Your task to perform on an android device: Search for seafood restaurants on Google Maps Image 0: 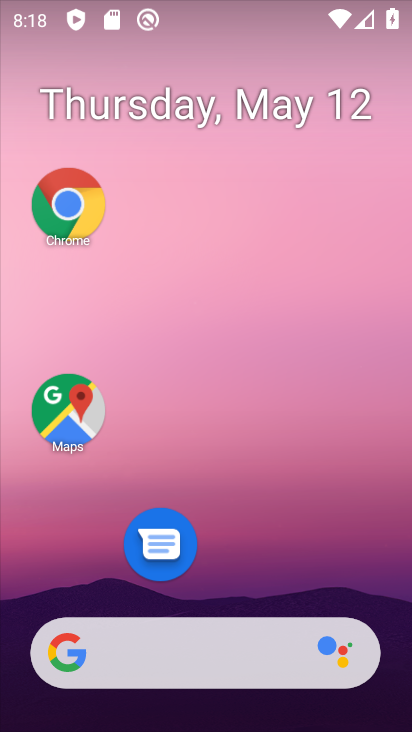
Step 0: click (51, 404)
Your task to perform on an android device: Search for seafood restaurants on Google Maps Image 1: 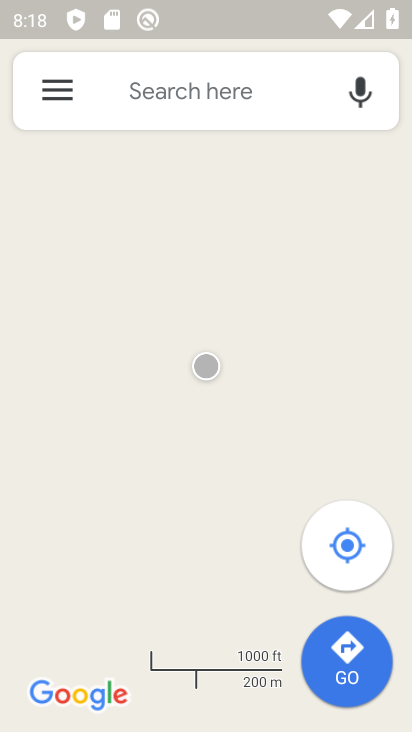
Step 1: click (177, 101)
Your task to perform on an android device: Search for seafood restaurants on Google Maps Image 2: 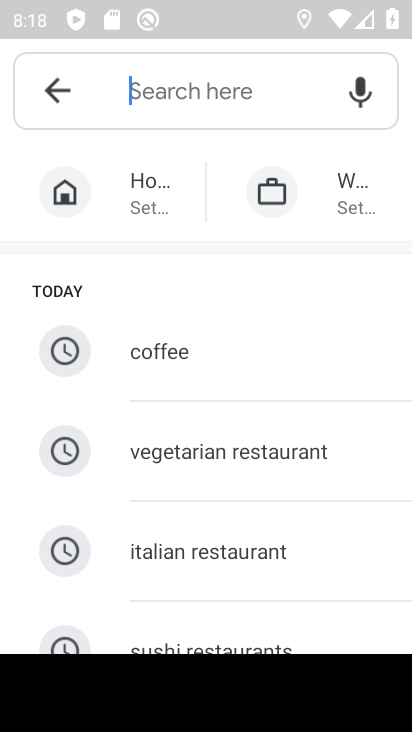
Step 2: type "seafood"
Your task to perform on an android device: Search for seafood restaurants on Google Maps Image 3: 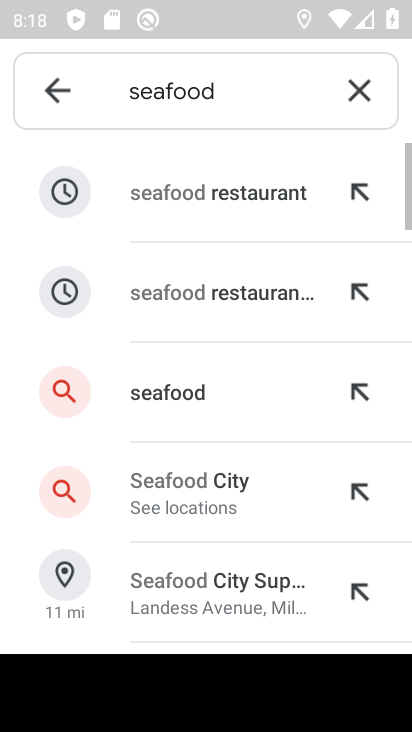
Step 3: click (263, 205)
Your task to perform on an android device: Search for seafood restaurants on Google Maps Image 4: 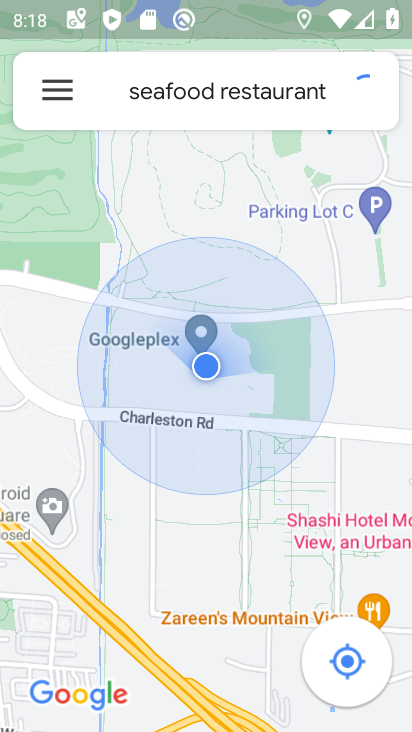
Step 4: task complete